Your task to perform on an android device: change the clock display to show seconds Image 0: 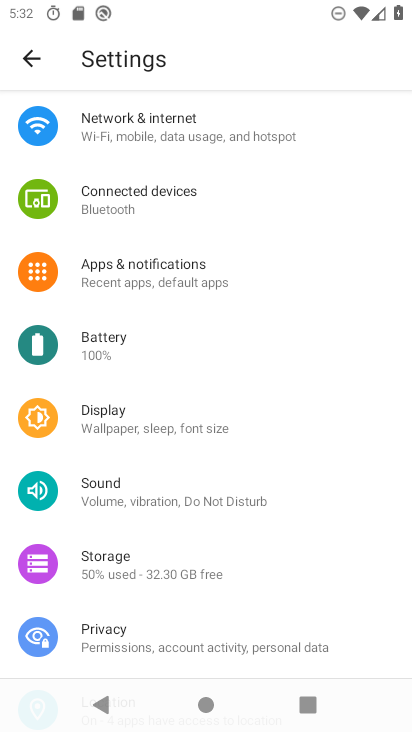
Step 0: press home button
Your task to perform on an android device: change the clock display to show seconds Image 1: 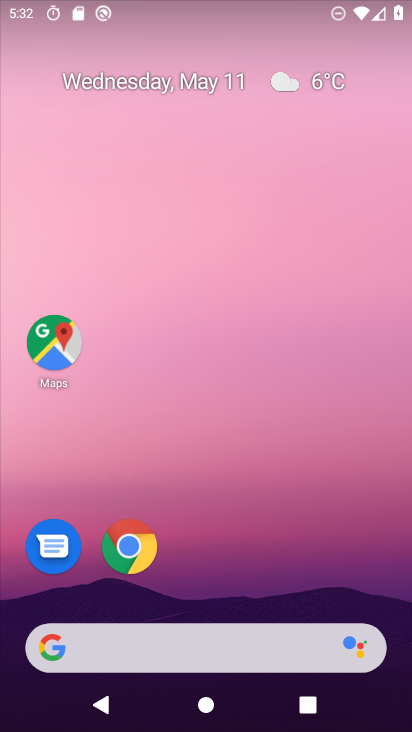
Step 1: drag from (205, 624) to (229, 240)
Your task to perform on an android device: change the clock display to show seconds Image 2: 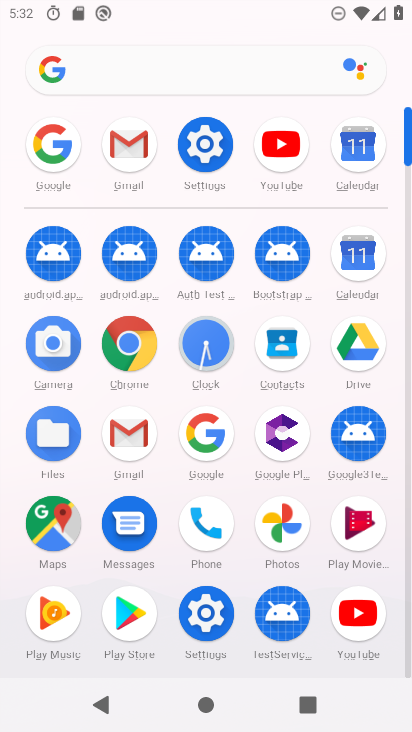
Step 2: click (199, 342)
Your task to perform on an android device: change the clock display to show seconds Image 3: 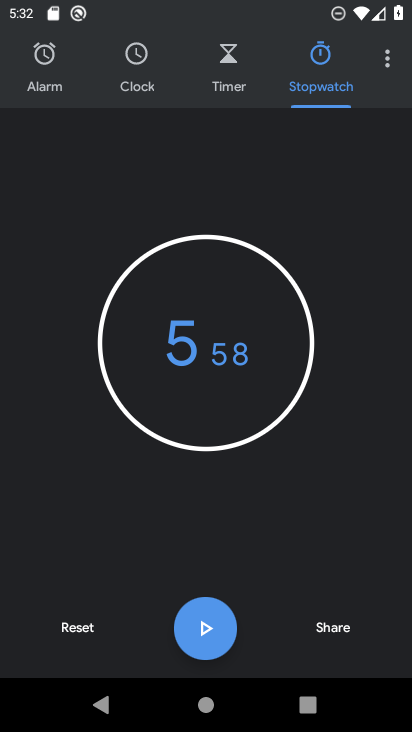
Step 3: click (383, 59)
Your task to perform on an android device: change the clock display to show seconds Image 4: 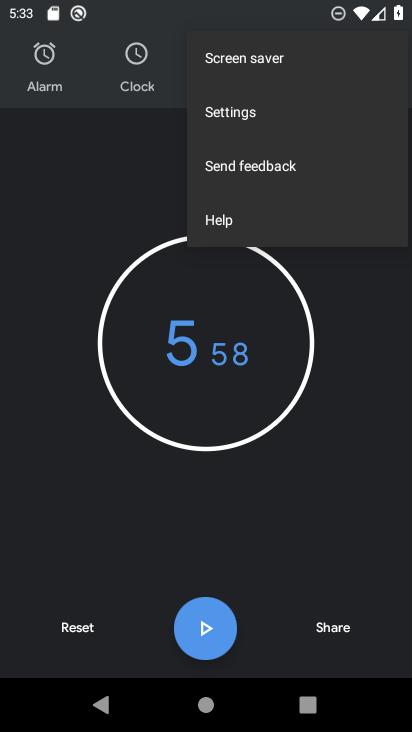
Step 4: click (248, 114)
Your task to perform on an android device: change the clock display to show seconds Image 5: 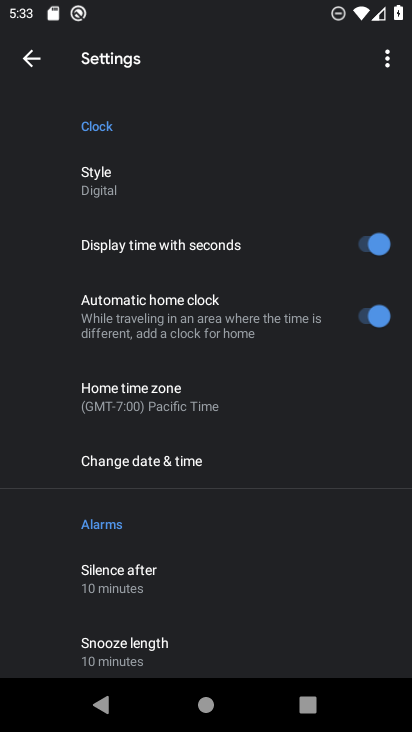
Step 5: task complete